Your task to perform on an android device: Open Google Maps Image 0: 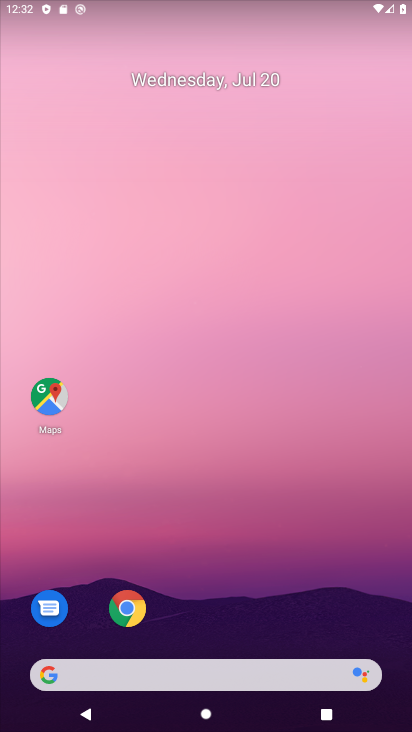
Step 0: drag from (232, 87) to (235, 51)
Your task to perform on an android device: Open Google Maps Image 1: 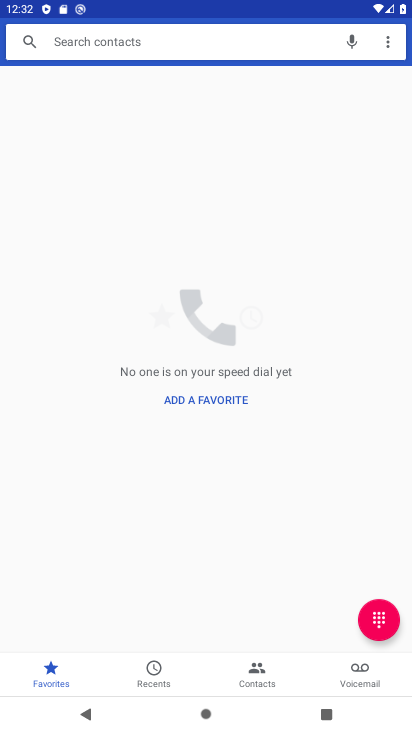
Step 1: press home button
Your task to perform on an android device: Open Google Maps Image 2: 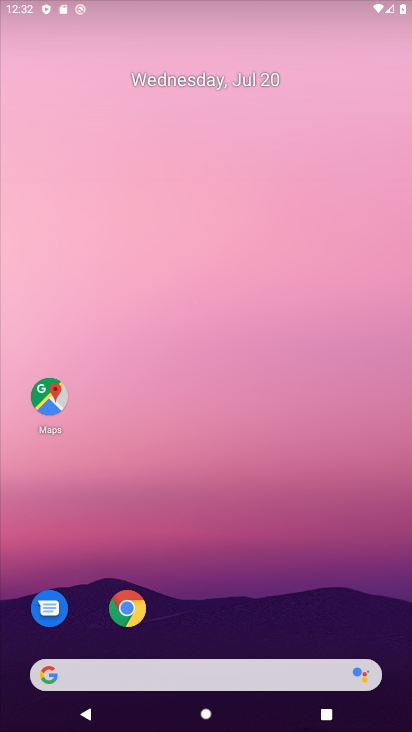
Step 2: click (40, 391)
Your task to perform on an android device: Open Google Maps Image 3: 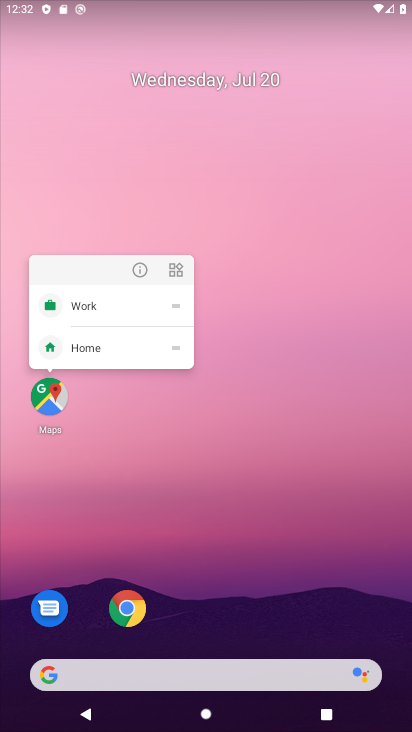
Step 3: click (58, 402)
Your task to perform on an android device: Open Google Maps Image 4: 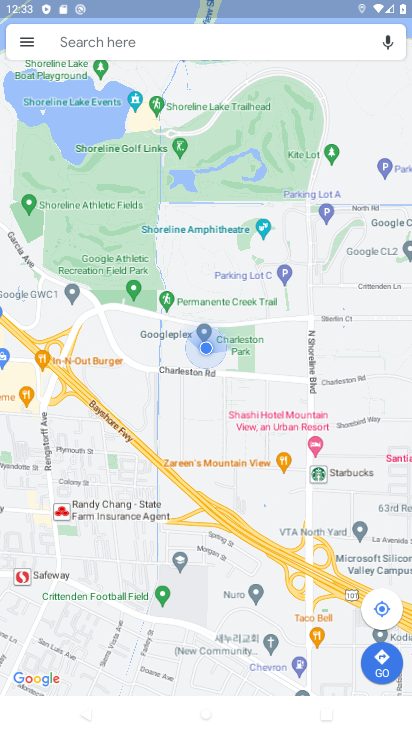
Step 4: task complete